Your task to perform on an android device: turn off picture-in-picture Image 0: 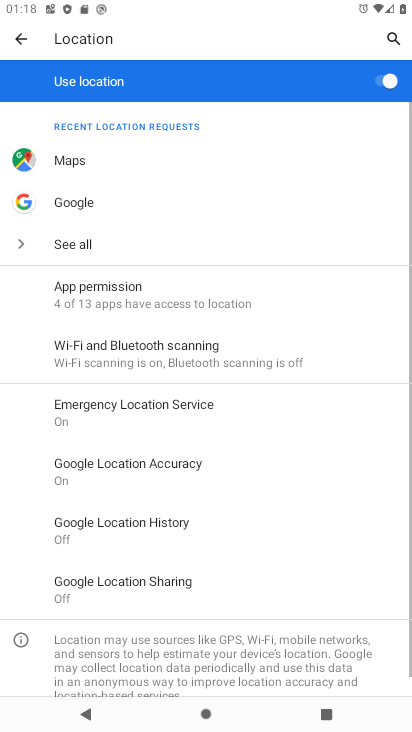
Step 0: press home button
Your task to perform on an android device: turn off picture-in-picture Image 1: 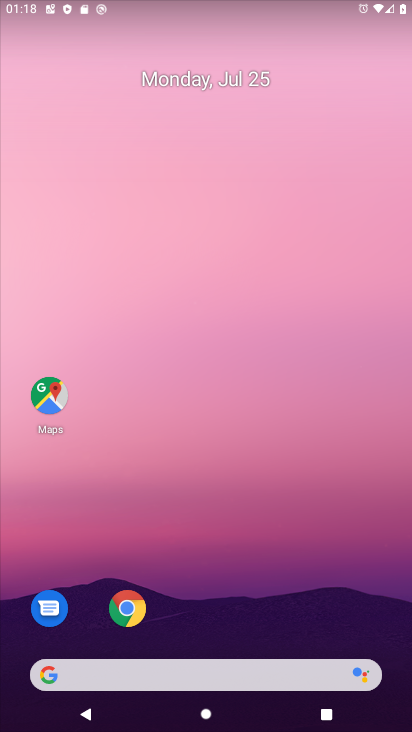
Step 1: drag from (191, 666) to (135, 89)
Your task to perform on an android device: turn off picture-in-picture Image 2: 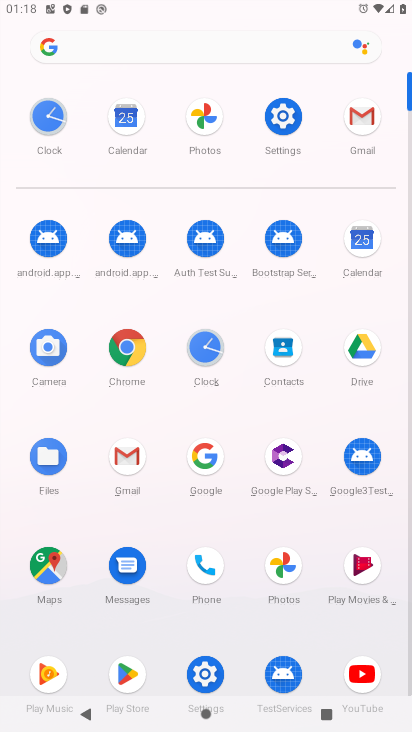
Step 2: click (289, 121)
Your task to perform on an android device: turn off picture-in-picture Image 3: 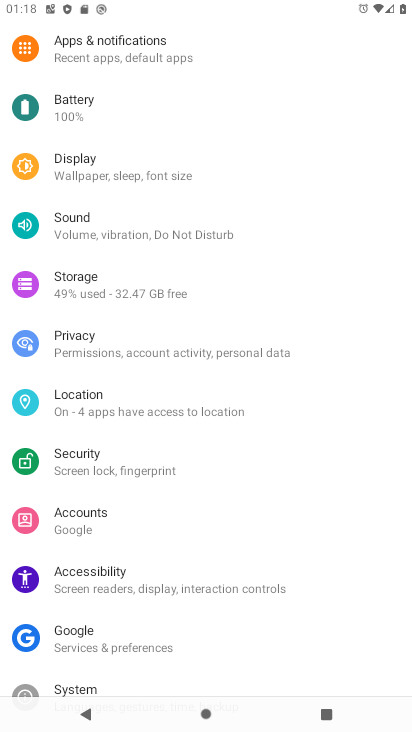
Step 3: click (143, 59)
Your task to perform on an android device: turn off picture-in-picture Image 4: 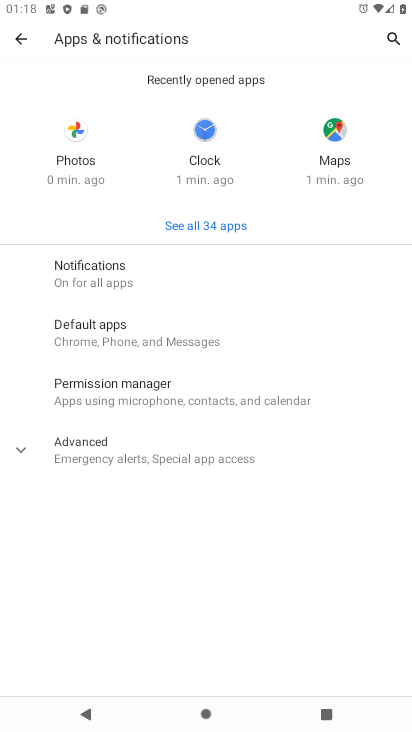
Step 4: click (64, 443)
Your task to perform on an android device: turn off picture-in-picture Image 5: 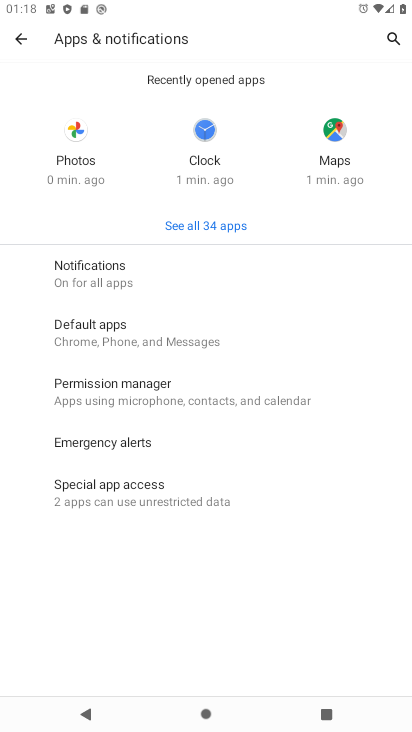
Step 5: click (143, 499)
Your task to perform on an android device: turn off picture-in-picture Image 6: 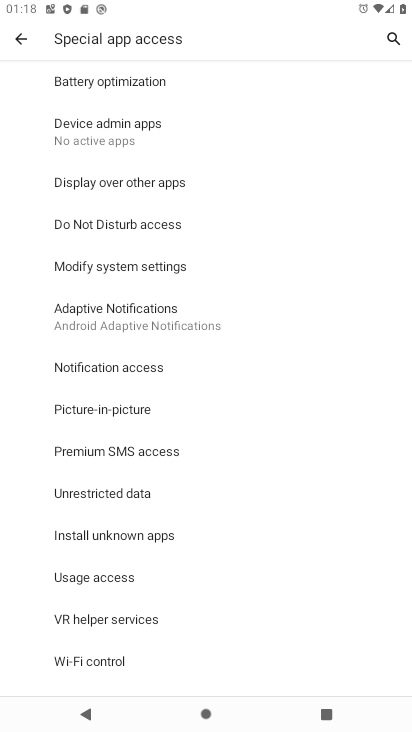
Step 6: click (93, 409)
Your task to perform on an android device: turn off picture-in-picture Image 7: 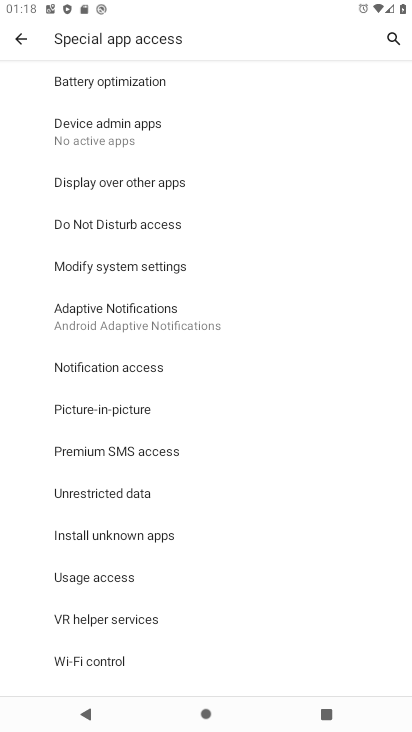
Step 7: task complete